Your task to perform on an android device: Open location settings Image 0: 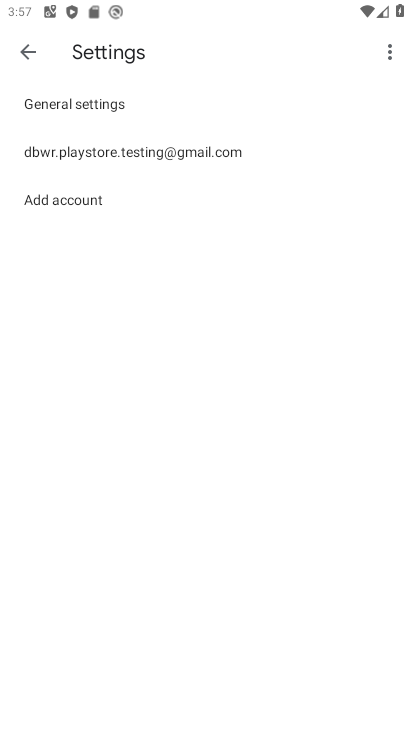
Step 0: press home button
Your task to perform on an android device: Open location settings Image 1: 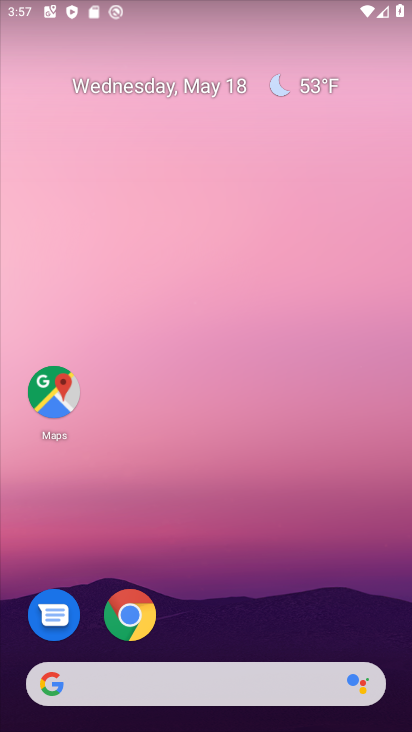
Step 1: drag from (304, 566) to (277, 133)
Your task to perform on an android device: Open location settings Image 2: 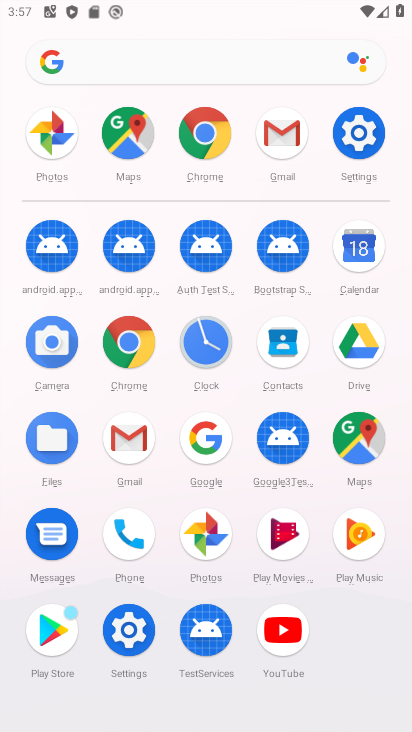
Step 2: click (348, 136)
Your task to perform on an android device: Open location settings Image 3: 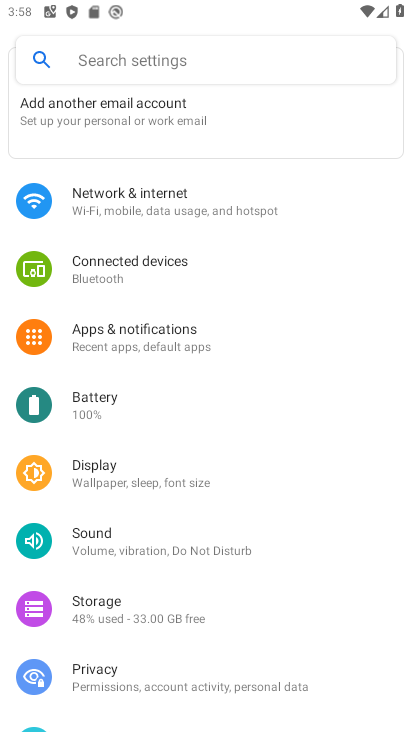
Step 3: drag from (160, 644) to (223, 269)
Your task to perform on an android device: Open location settings Image 4: 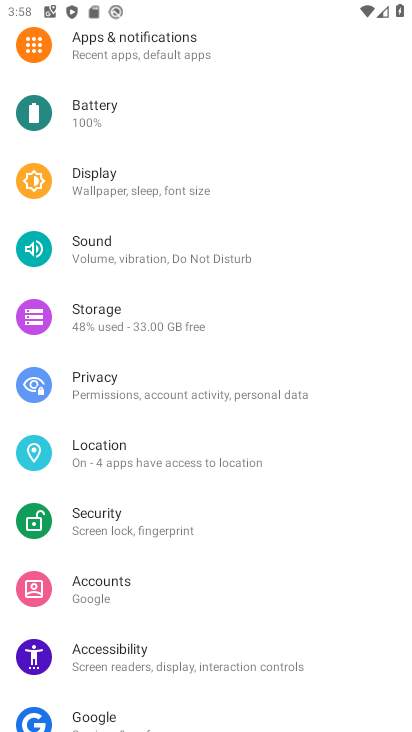
Step 4: click (133, 449)
Your task to perform on an android device: Open location settings Image 5: 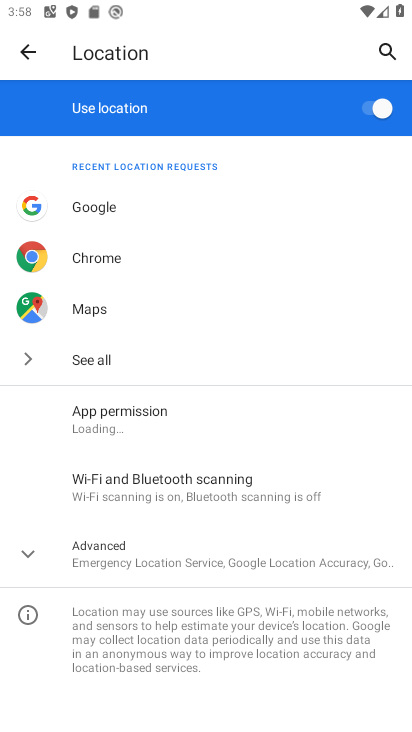
Step 5: task complete